Your task to perform on an android device: Open calendar and show me the third week of next month Image 0: 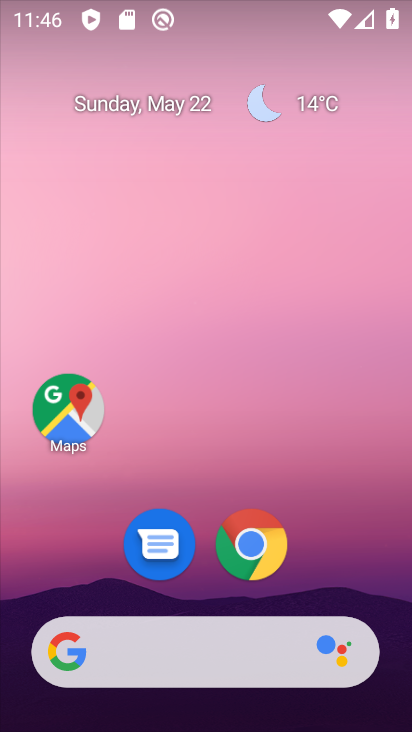
Step 0: drag from (298, 401) to (258, 47)
Your task to perform on an android device: Open calendar and show me the third week of next month Image 1: 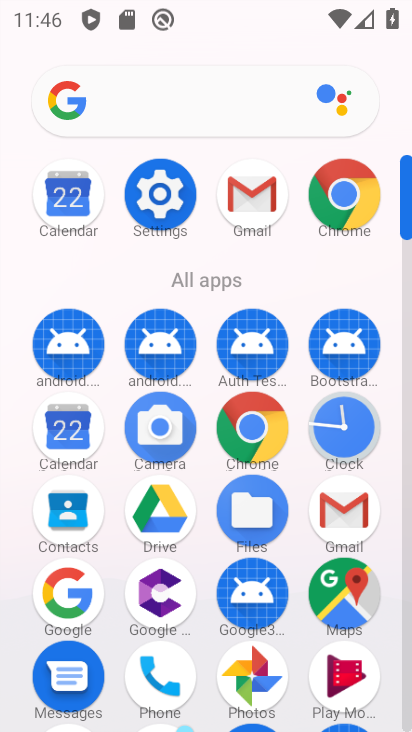
Step 1: click (77, 429)
Your task to perform on an android device: Open calendar and show me the third week of next month Image 2: 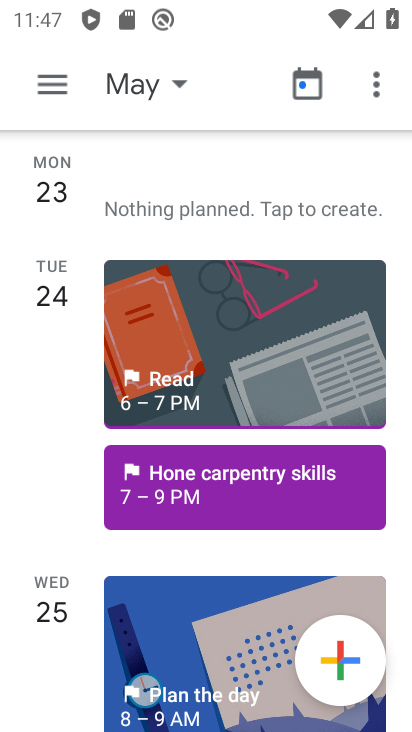
Step 2: click (119, 79)
Your task to perform on an android device: Open calendar and show me the third week of next month Image 3: 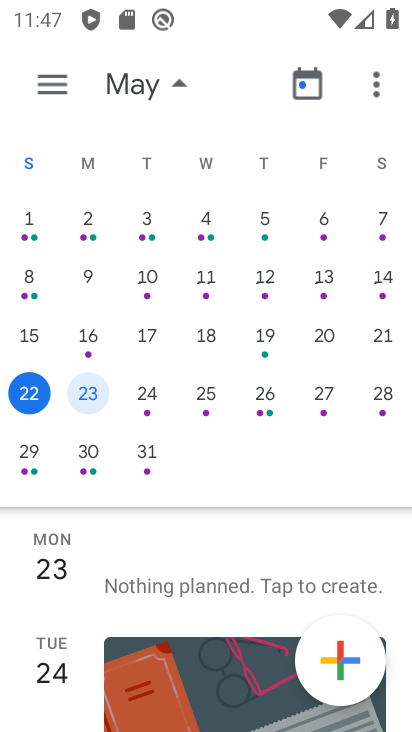
Step 3: drag from (359, 312) to (56, 331)
Your task to perform on an android device: Open calendar and show me the third week of next month Image 4: 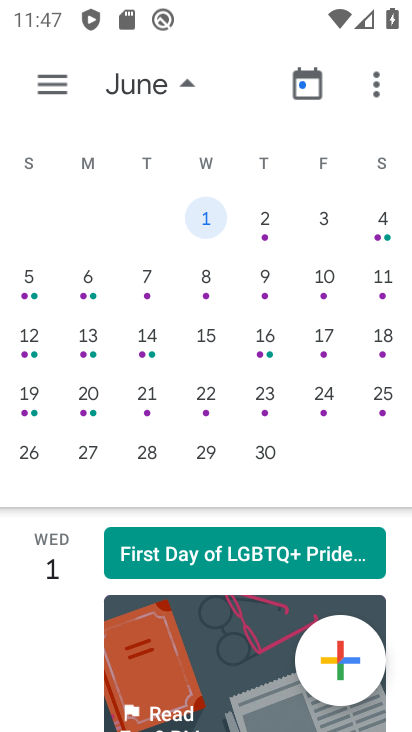
Step 4: click (17, 406)
Your task to perform on an android device: Open calendar and show me the third week of next month Image 5: 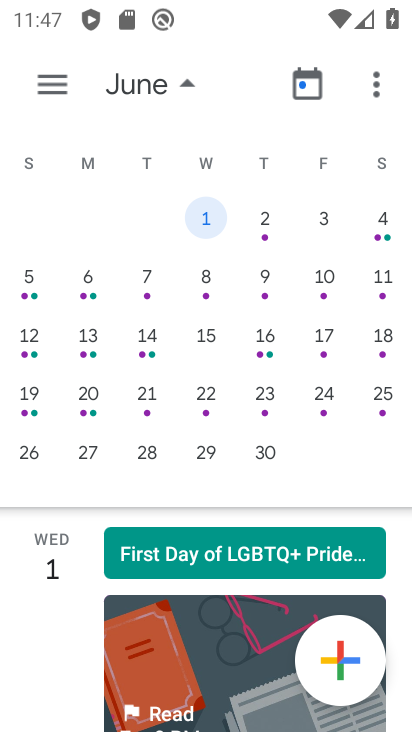
Step 5: click (25, 407)
Your task to perform on an android device: Open calendar and show me the third week of next month Image 6: 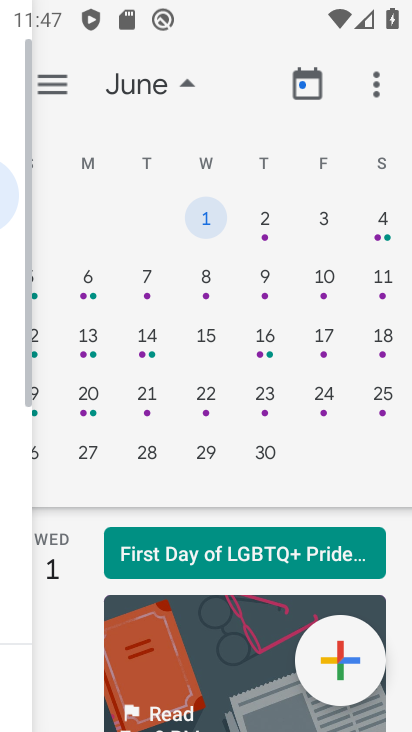
Step 6: click (31, 402)
Your task to perform on an android device: Open calendar and show me the third week of next month Image 7: 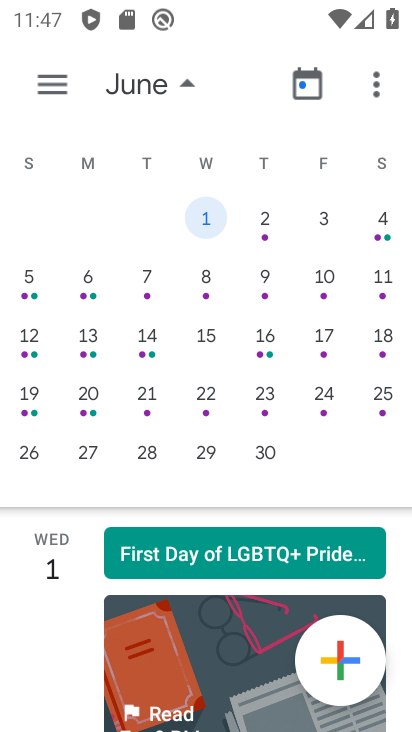
Step 7: click (31, 402)
Your task to perform on an android device: Open calendar and show me the third week of next month Image 8: 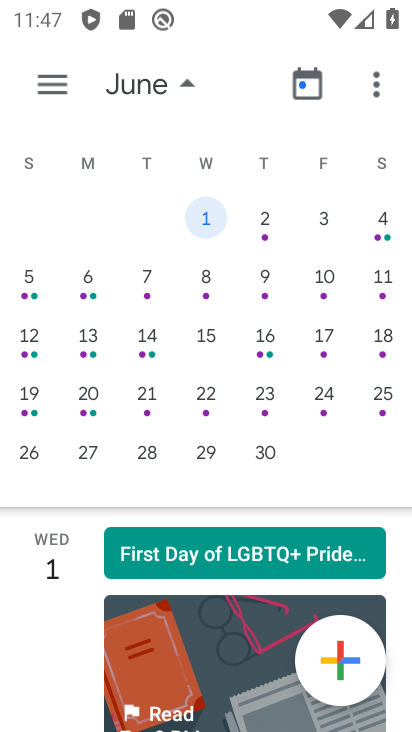
Step 8: click (31, 402)
Your task to perform on an android device: Open calendar and show me the third week of next month Image 9: 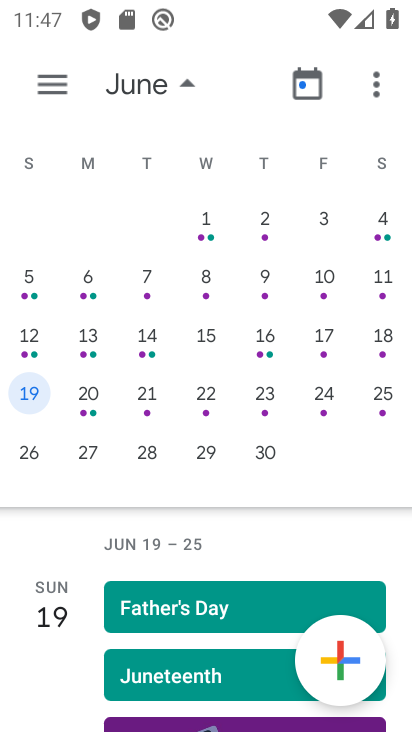
Step 9: click (42, 80)
Your task to perform on an android device: Open calendar and show me the third week of next month Image 10: 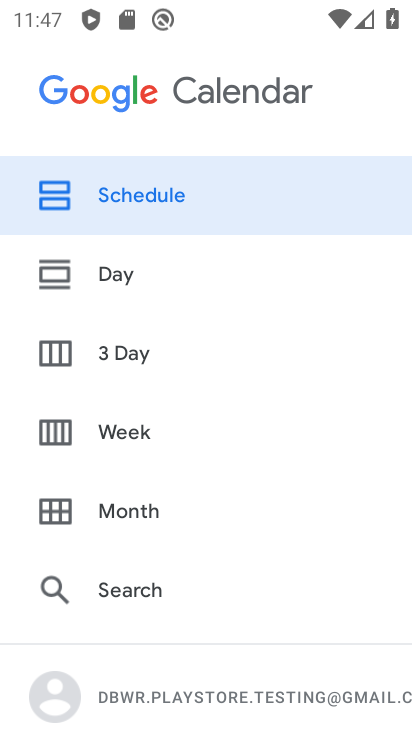
Step 10: click (124, 422)
Your task to perform on an android device: Open calendar and show me the third week of next month Image 11: 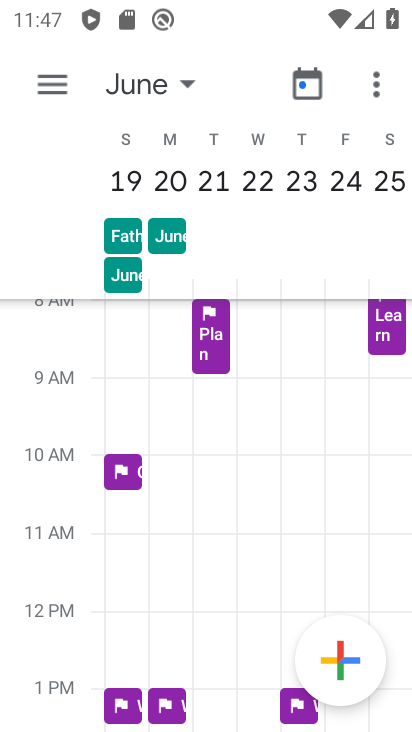
Step 11: task complete